Your task to perform on an android device: Go to Google maps Image 0: 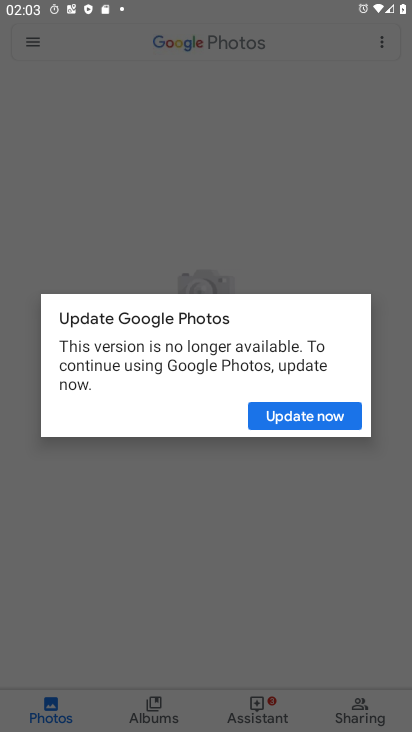
Step 0: press home button
Your task to perform on an android device: Go to Google maps Image 1: 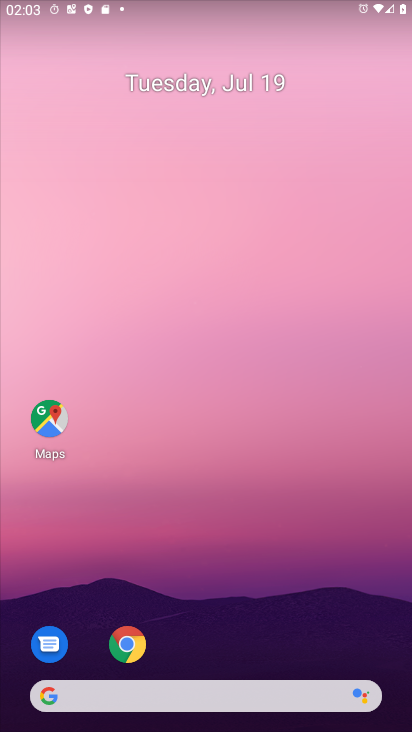
Step 1: drag from (197, 721) to (188, 205)
Your task to perform on an android device: Go to Google maps Image 2: 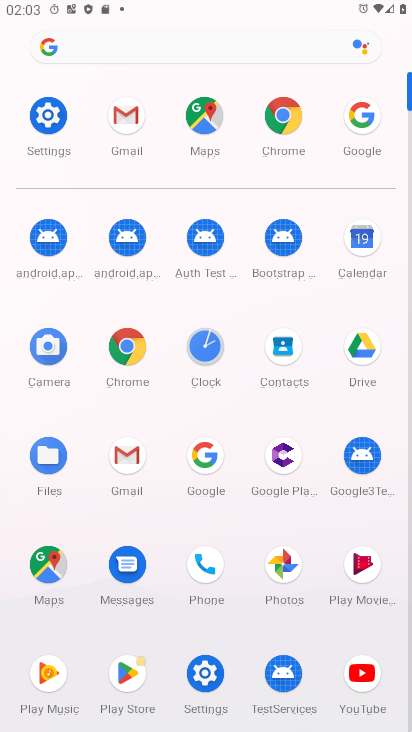
Step 2: click (41, 562)
Your task to perform on an android device: Go to Google maps Image 3: 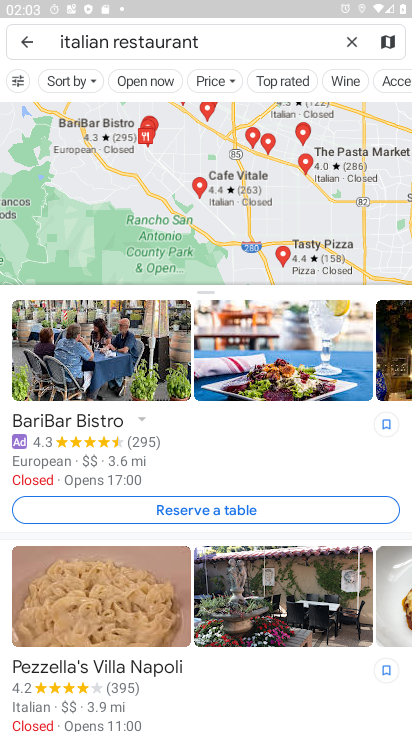
Step 3: task complete